Your task to perform on an android device: find which apps use the phone's location Image 0: 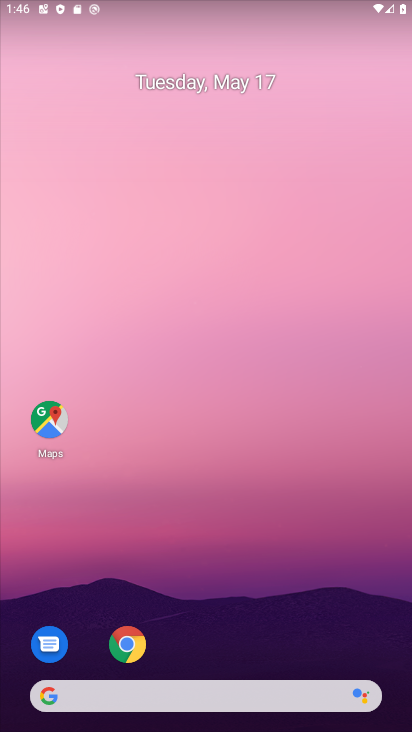
Step 0: drag from (227, 669) to (128, 253)
Your task to perform on an android device: find which apps use the phone's location Image 1: 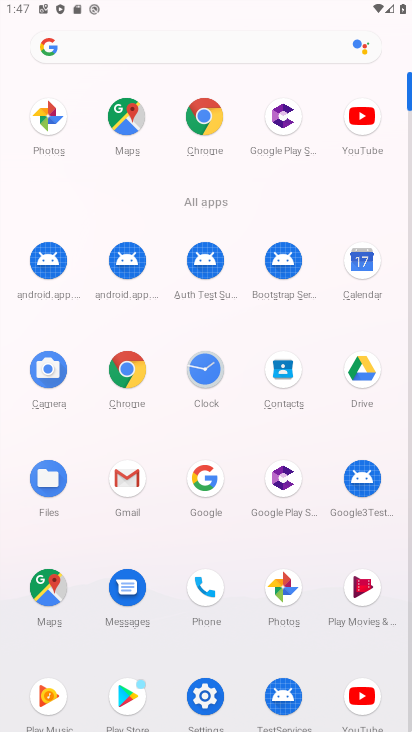
Step 1: click (203, 686)
Your task to perform on an android device: find which apps use the phone's location Image 2: 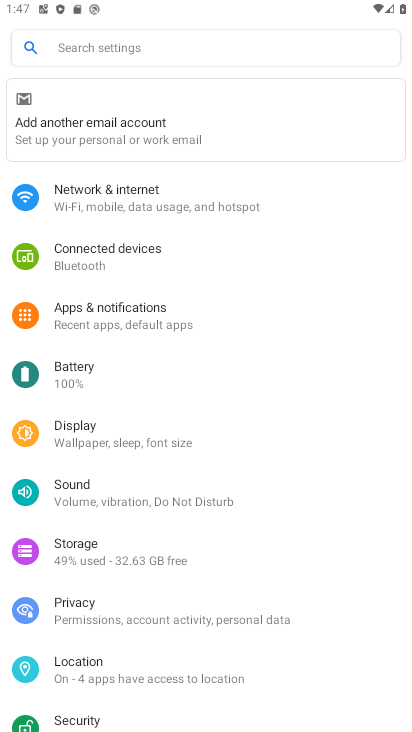
Step 2: click (187, 679)
Your task to perform on an android device: find which apps use the phone's location Image 3: 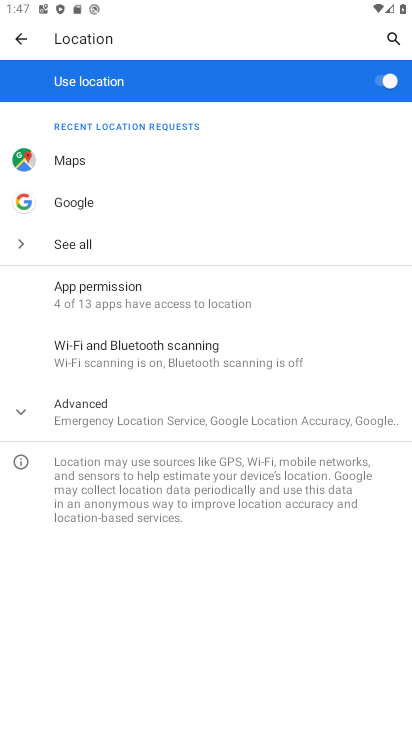
Step 3: click (130, 426)
Your task to perform on an android device: find which apps use the phone's location Image 4: 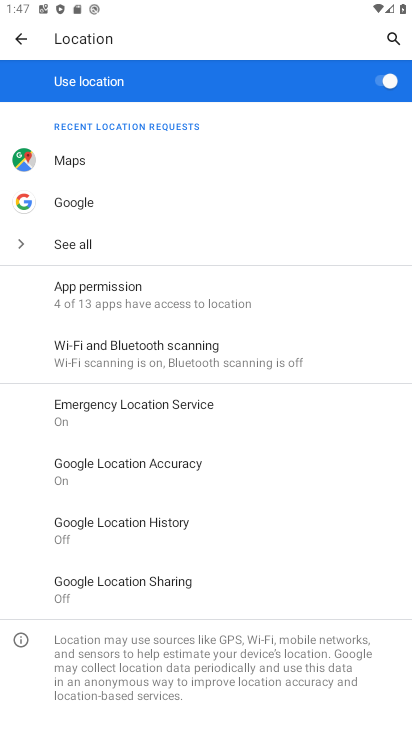
Step 4: task complete